Your task to perform on an android device: open a bookmark in the chrome app Image 0: 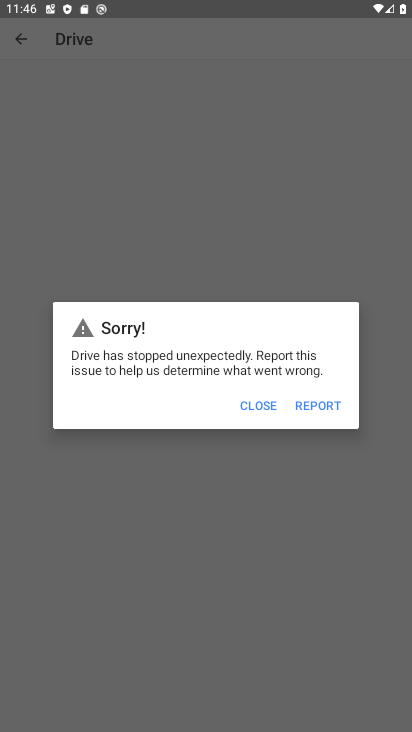
Step 0: press home button
Your task to perform on an android device: open a bookmark in the chrome app Image 1: 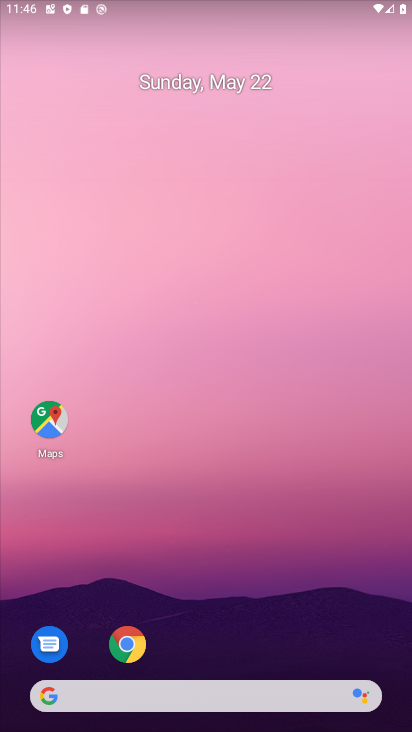
Step 1: drag from (354, 660) to (315, 148)
Your task to perform on an android device: open a bookmark in the chrome app Image 2: 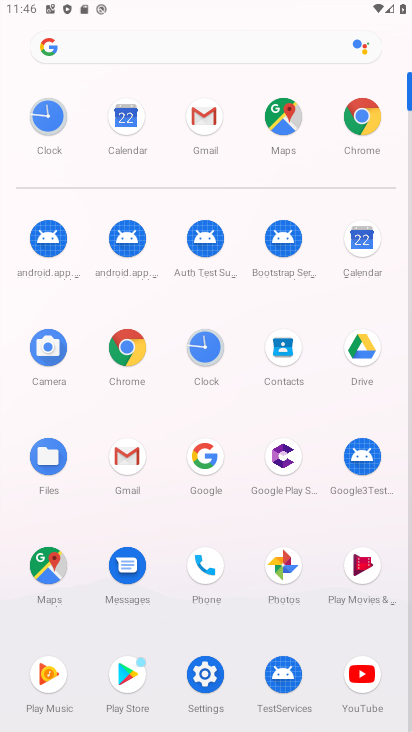
Step 2: click (132, 349)
Your task to perform on an android device: open a bookmark in the chrome app Image 3: 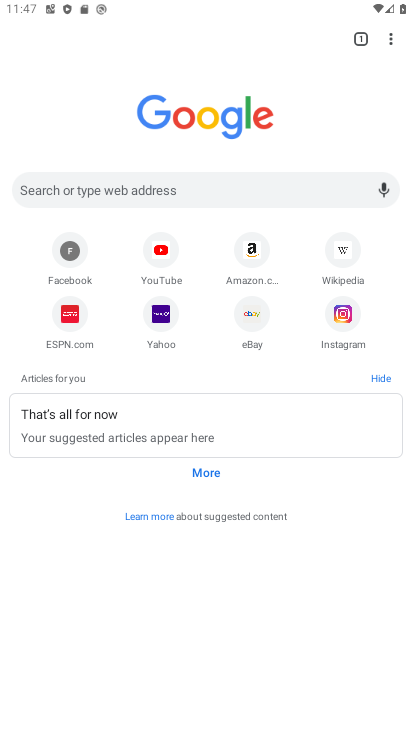
Step 3: click (390, 30)
Your task to perform on an android device: open a bookmark in the chrome app Image 4: 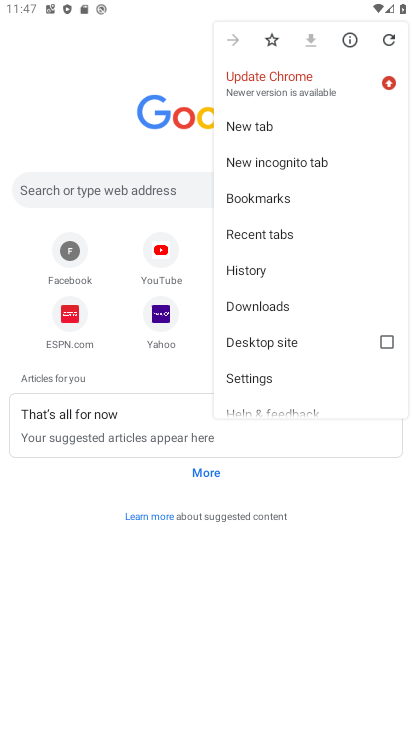
Step 4: click (266, 203)
Your task to perform on an android device: open a bookmark in the chrome app Image 5: 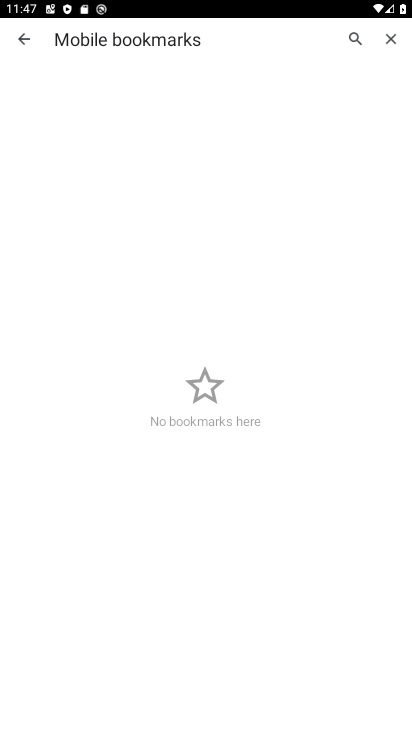
Step 5: task complete